Your task to perform on an android device: What's the weather today? Image 0: 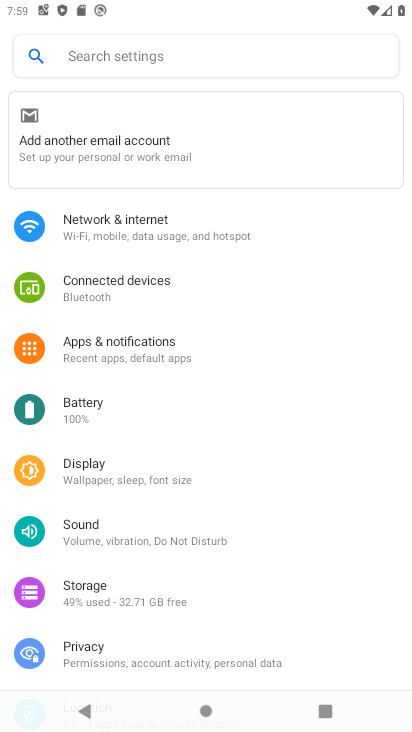
Step 0: press home button
Your task to perform on an android device: What's the weather today? Image 1: 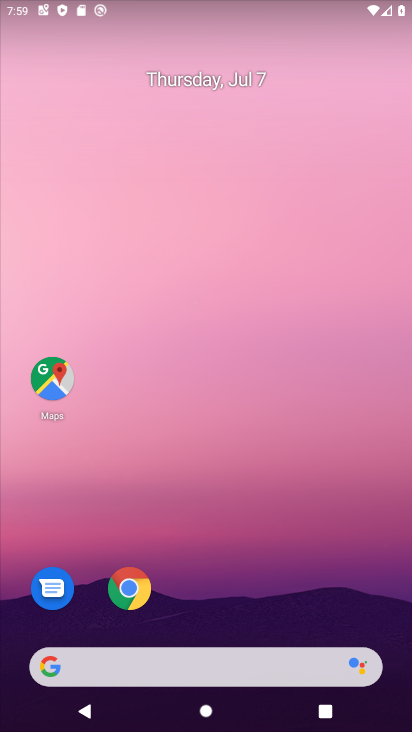
Step 1: click (107, 654)
Your task to perform on an android device: What's the weather today? Image 2: 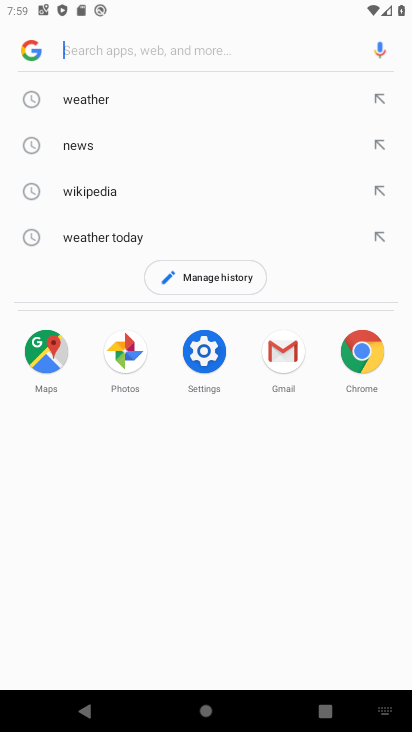
Step 2: type "What's the weather today?"
Your task to perform on an android device: What's the weather today? Image 3: 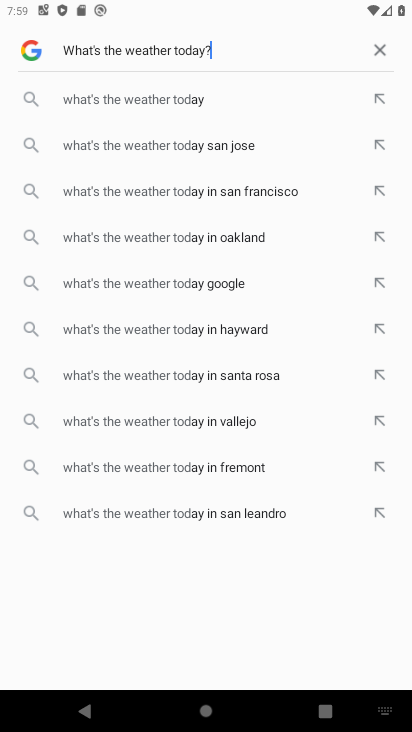
Step 3: type ""
Your task to perform on an android device: What's the weather today? Image 4: 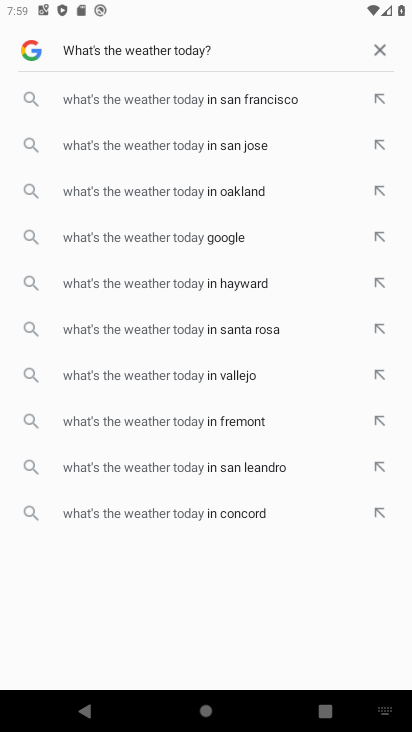
Step 4: type ""
Your task to perform on an android device: What's the weather today? Image 5: 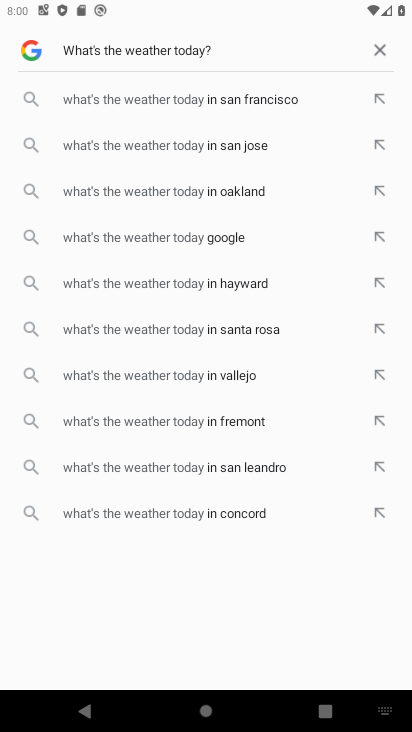
Step 5: type "       "
Your task to perform on an android device: What's the weather today? Image 6: 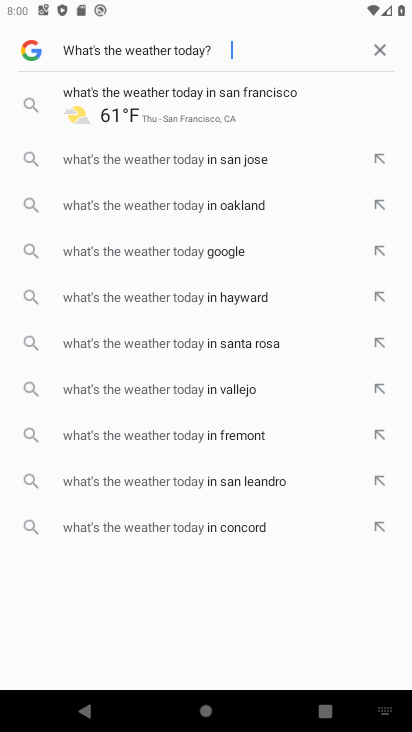
Step 6: task complete